Your task to perform on an android device: set the timer Image 0: 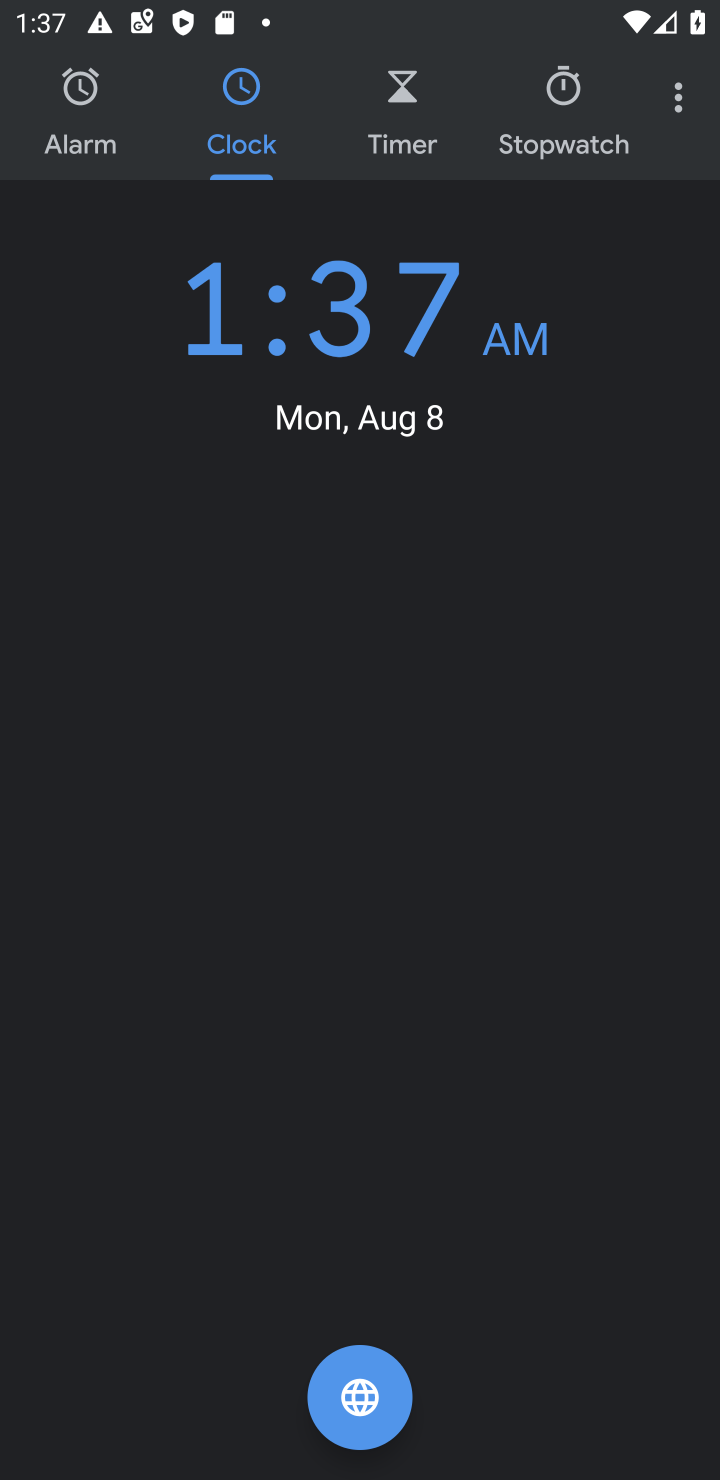
Step 0: press home button
Your task to perform on an android device: set the timer Image 1: 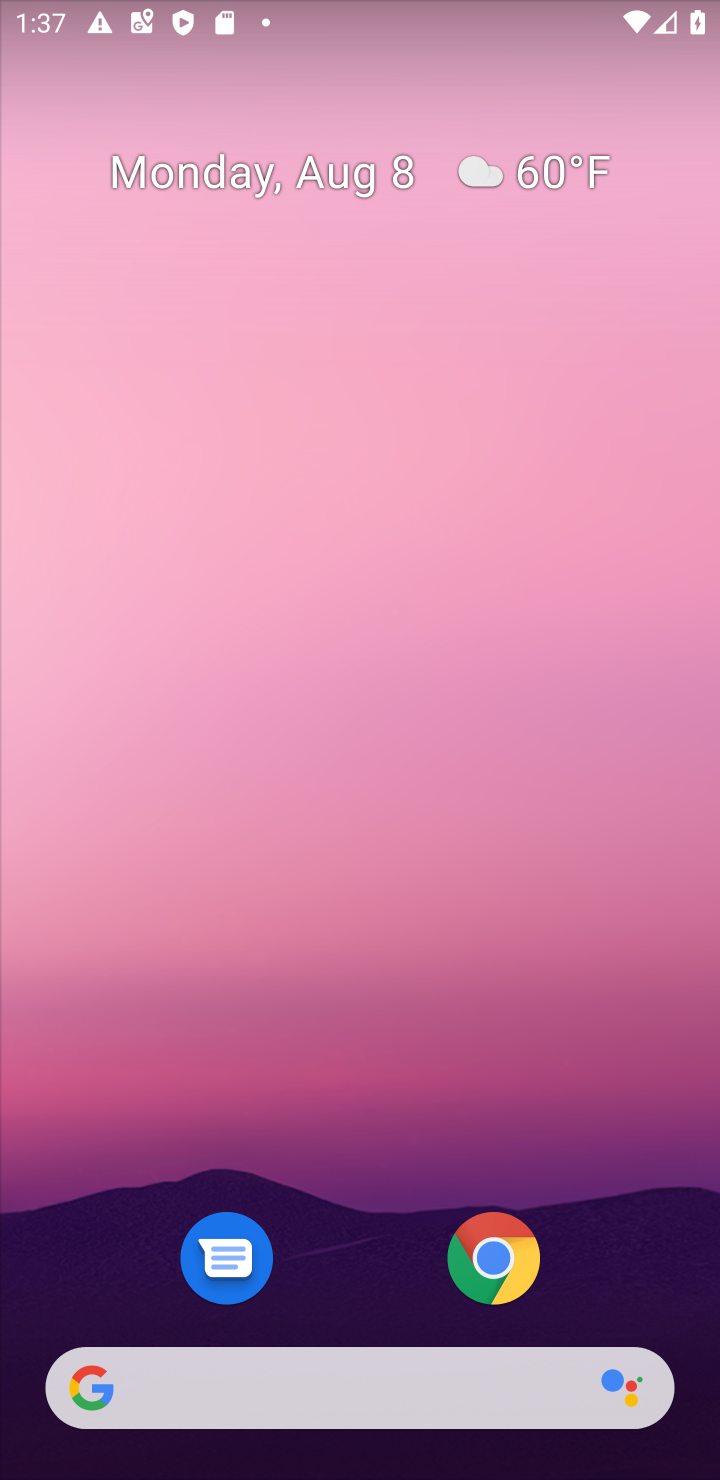
Step 1: drag from (544, 1200) to (482, 17)
Your task to perform on an android device: set the timer Image 2: 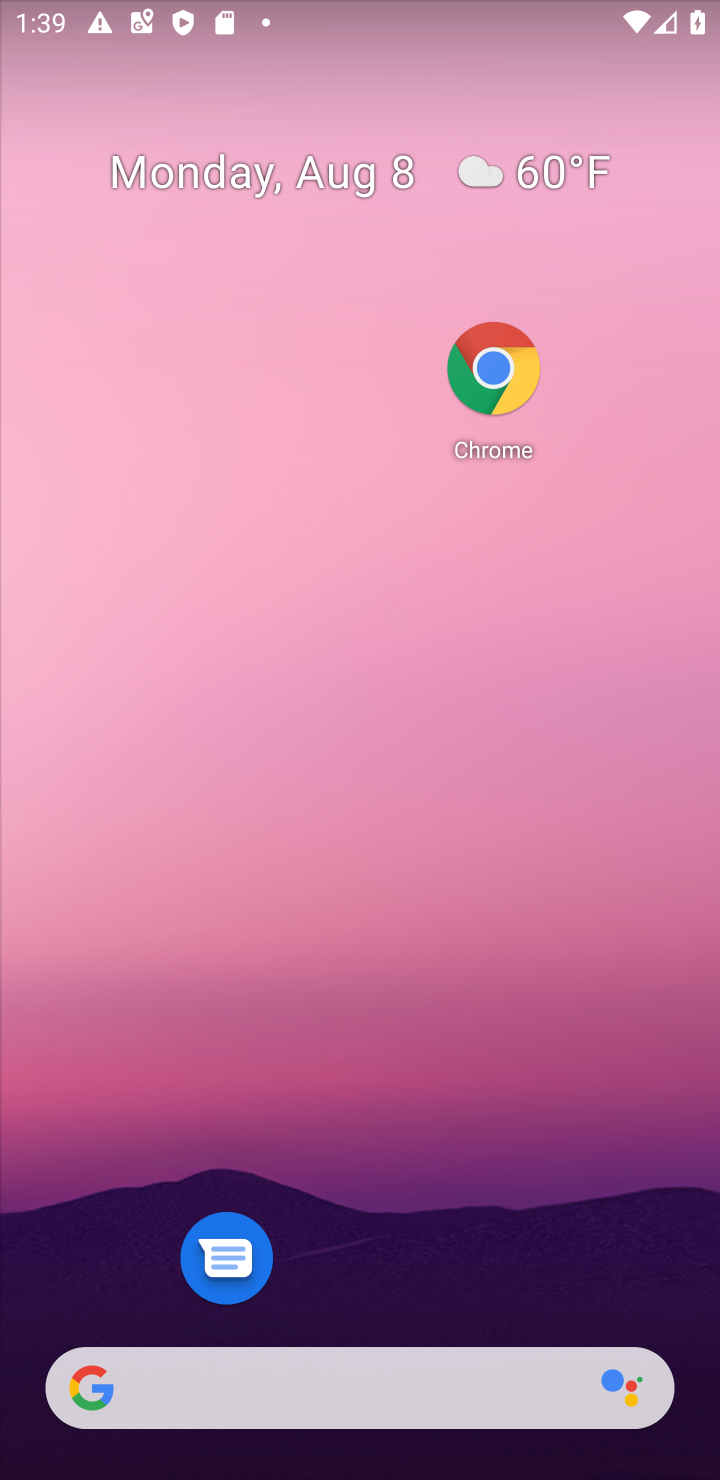
Step 2: drag from (495, 86) to (711, 42)
Your task to perform on an android device: set the timer Image 3: 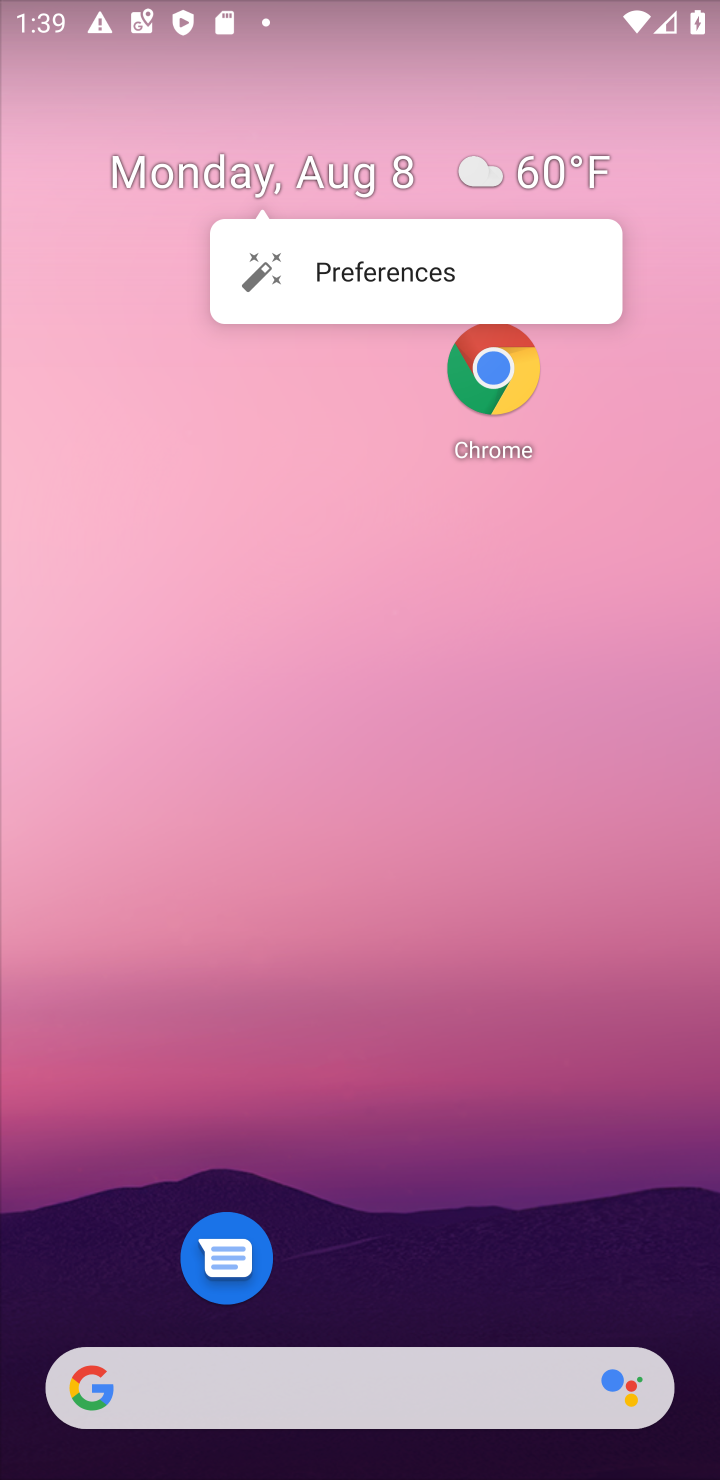
Step 3: drag from (344, 1198) to (694, 466)
Your task to perform on an android device: set the timer Image 4: 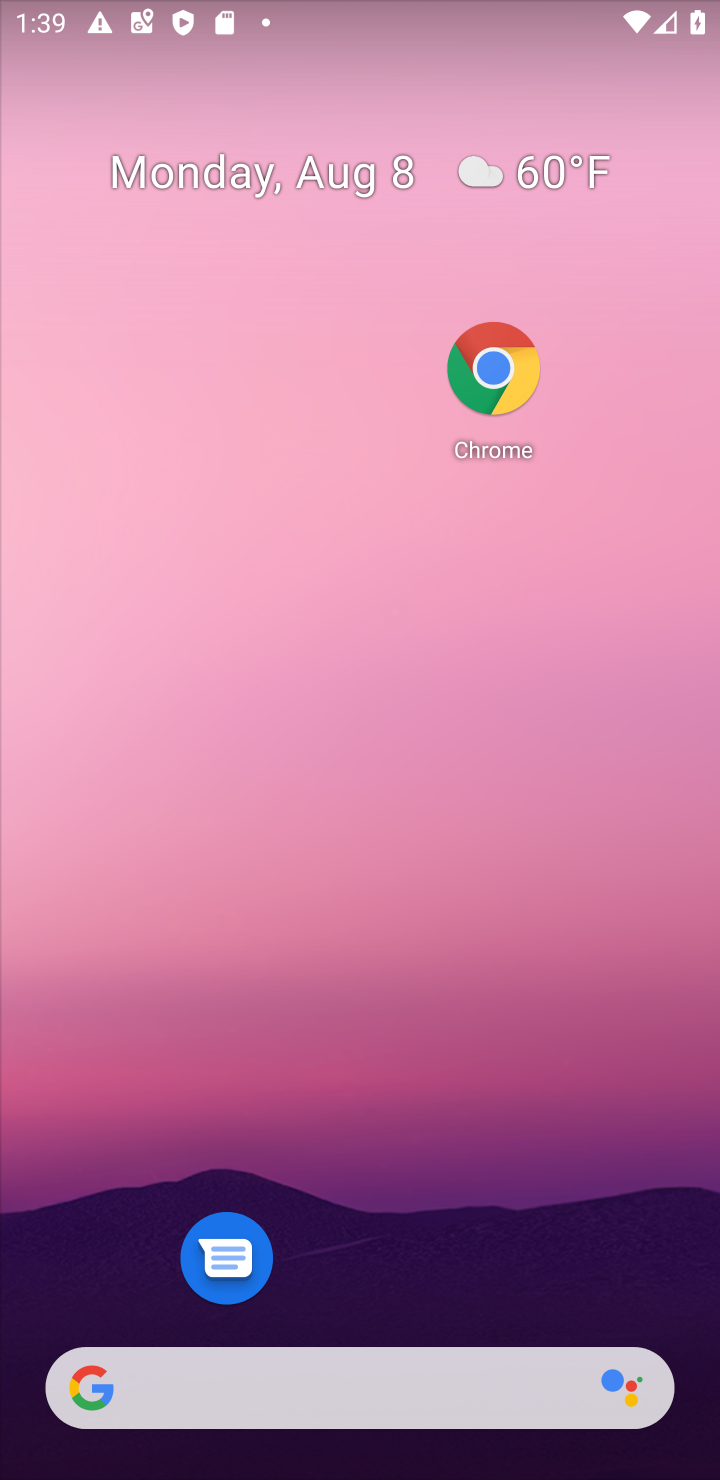
Step 4: drag from (321, 1247) to (406, 23)
Your task to perform on an android device: set the timer Image 5: 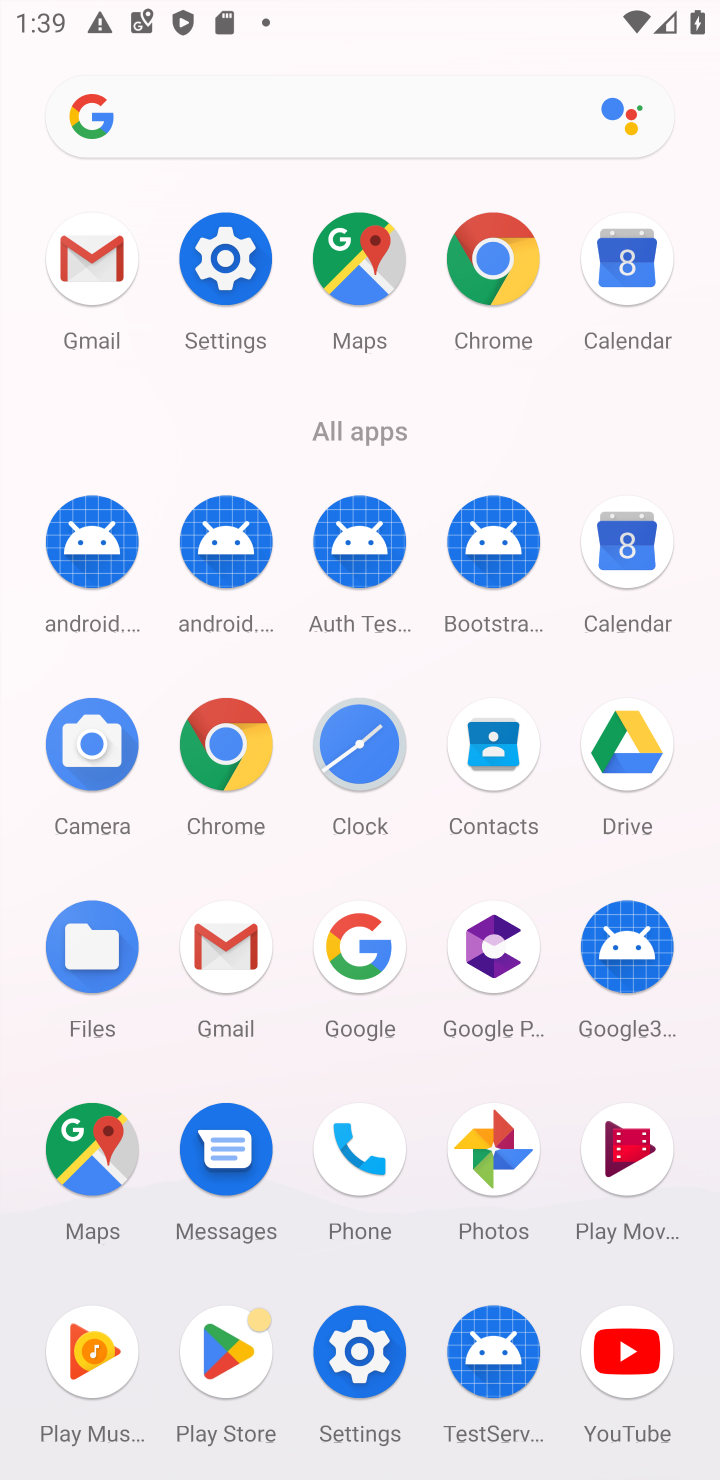
Step 5: click (364, 767)
Your task to perform on an android device: set the timer Image 6: 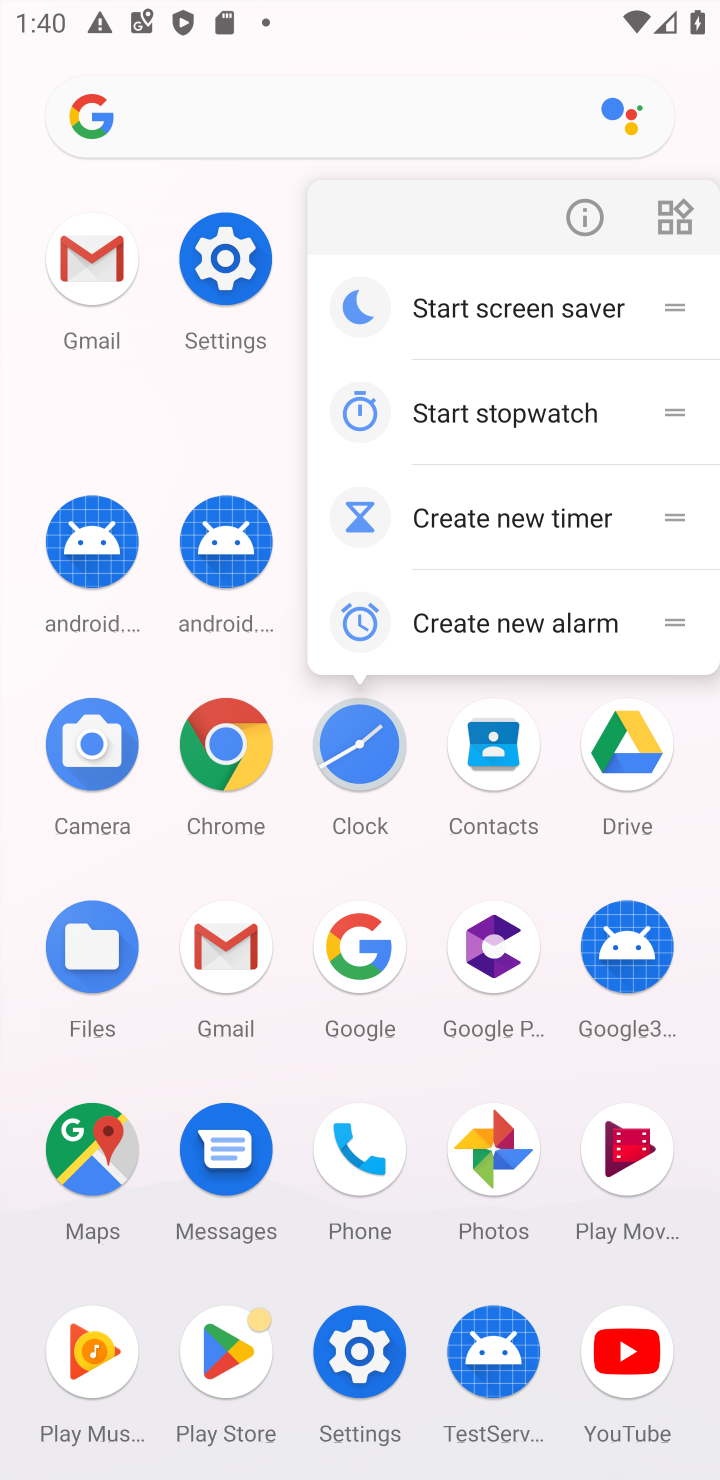
Step 6: click (359, 783)
Your task to perform on an android device: set the timer Image 7: 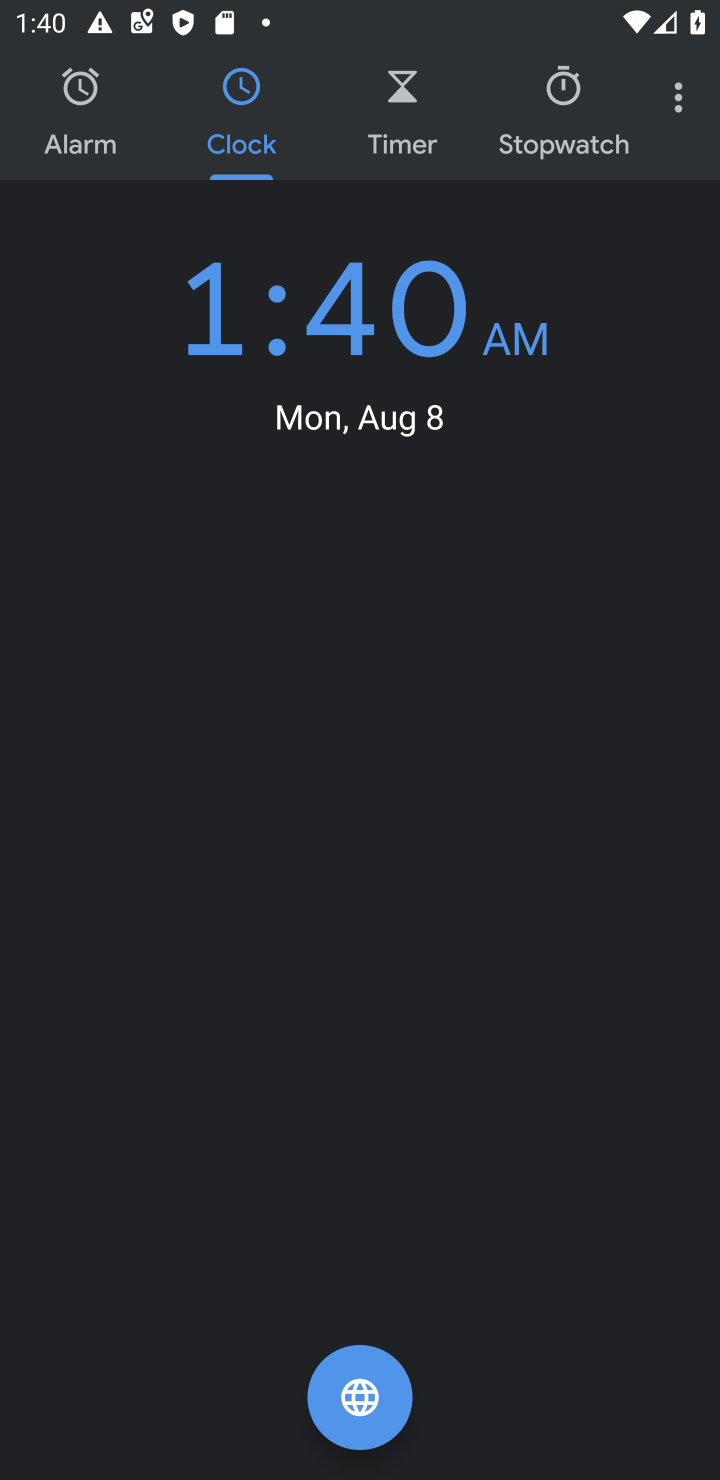
Step 7: click (411, 114)
Your task to perform on an android device: set the timer Image 8: 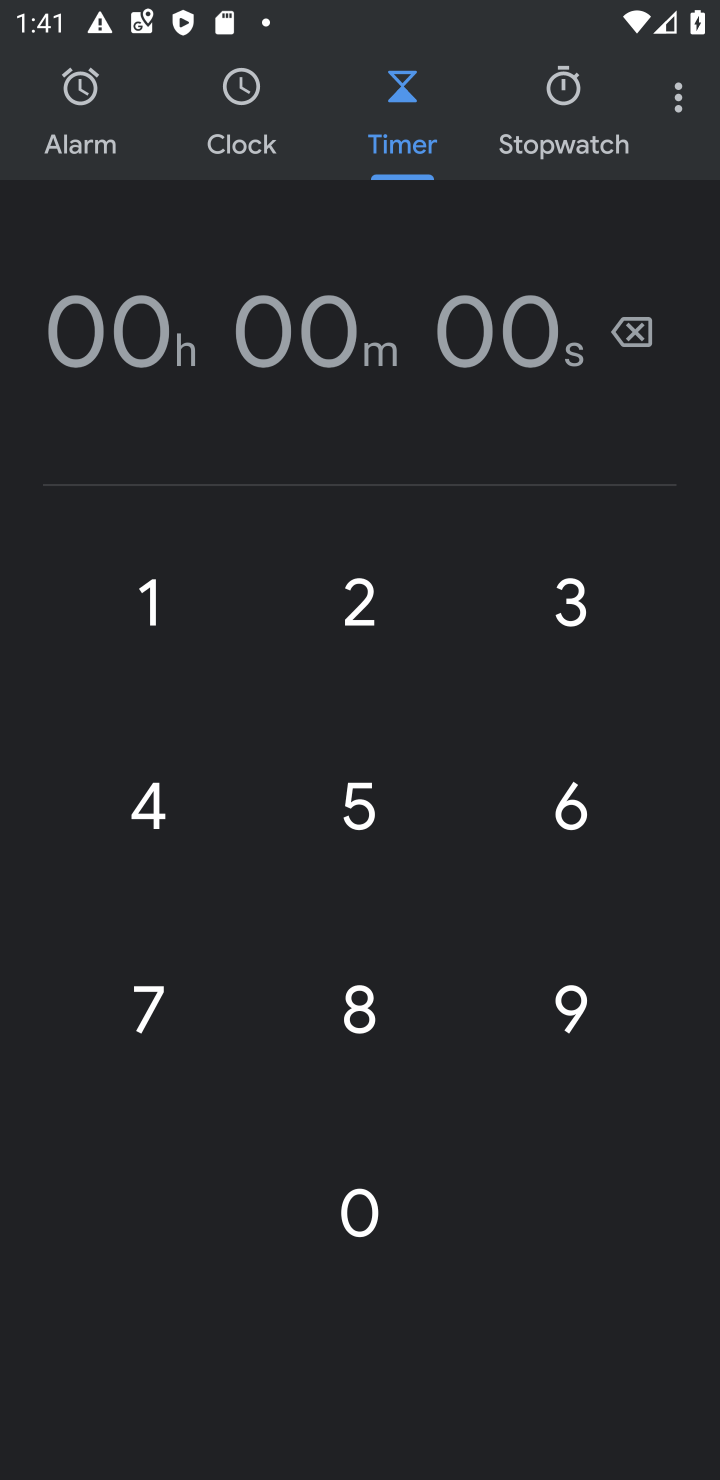
Step 8: click (149, 591)
Your task to perform on an android device: set the timer Image 9: 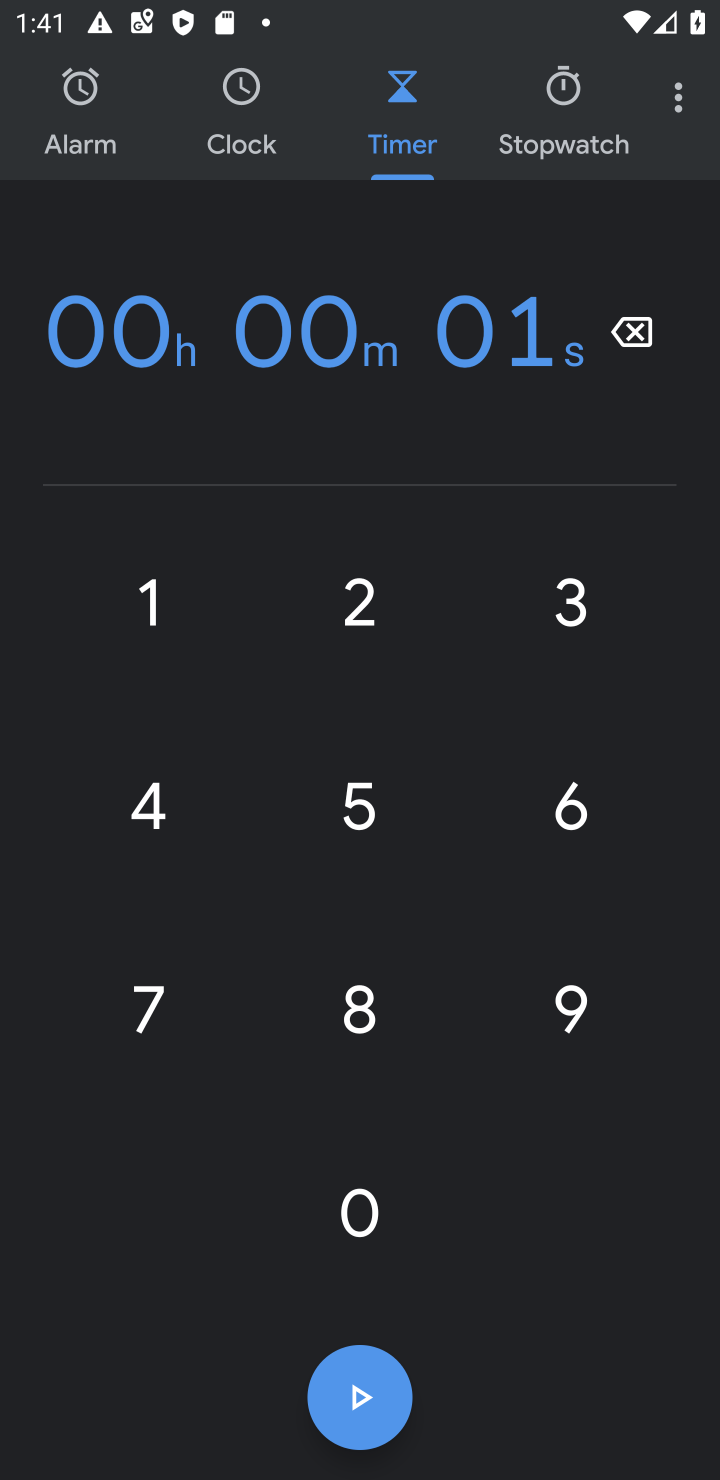
Step 9: click (386, 1404)
Your task to perform on an android device: set the timer Image 10: 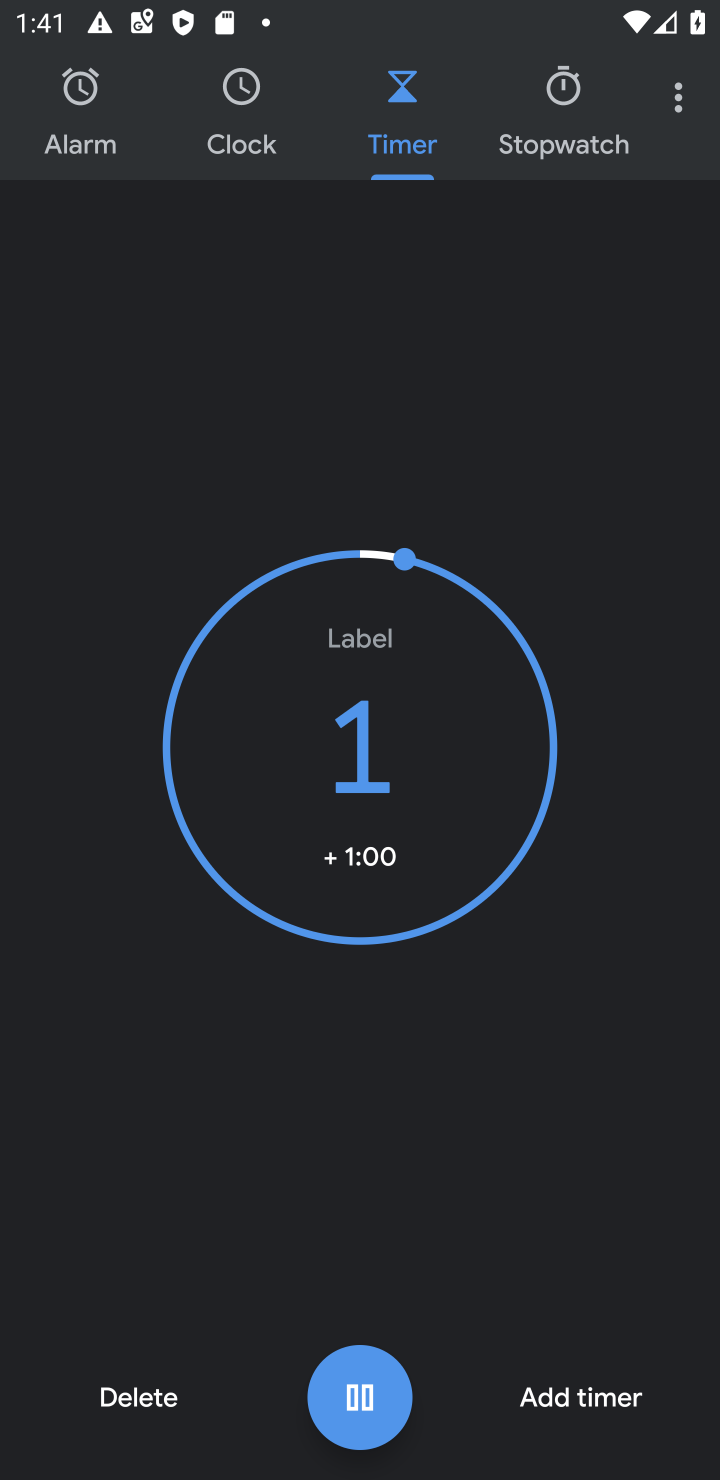
Step 10: task complete